Your task to perform on an android device: turn on translation in the chrome app Image 0: 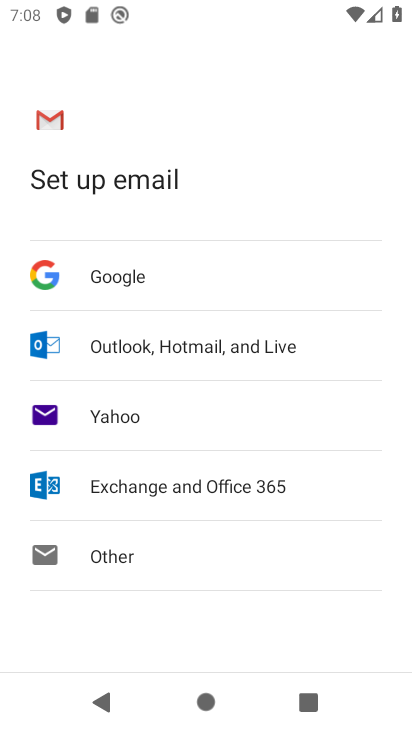
Step 0: press home button
Your task to perform on an android device: turn on translation in the chrome app Image 1: 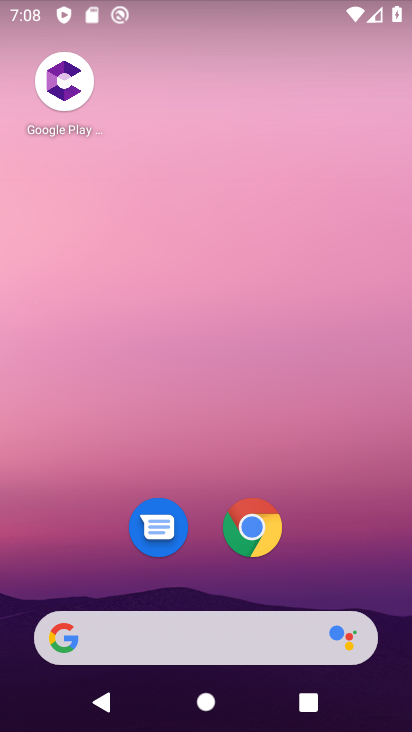
Step 1: click (251, 545)
Your task to perform on an android device: turn on translation in the chrome app Image 2: 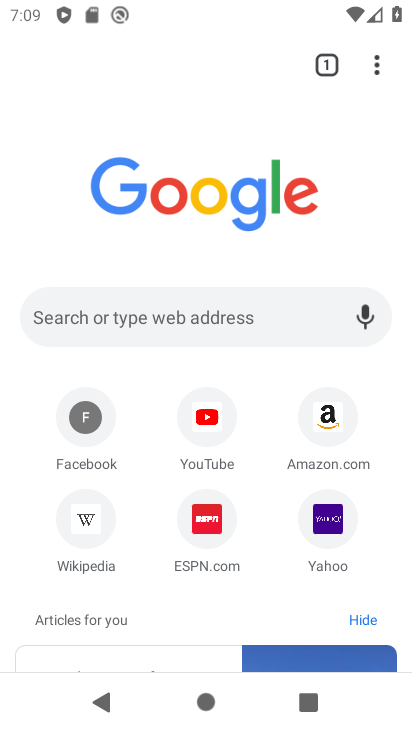
Step 2: click (379, 78)
Your task to perform on an android device: turn on translation in the chrome app Image 3: 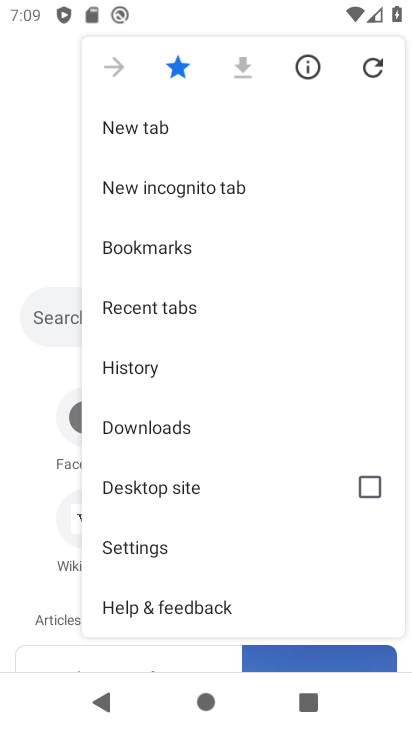
Step 3: drag from (164, 551) to (159, 398)
Your task to perform on an android device: turn on translation in the chrome app Image 4: 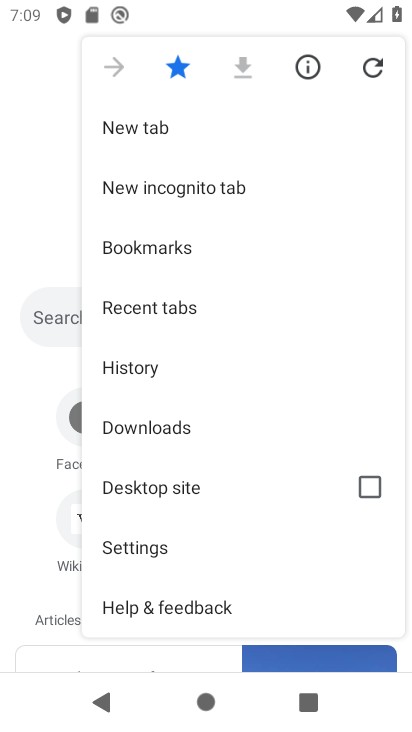
Step 4: click (170, 555)
Your task to perform on an android device: turn on translation in the chrome app Image 5: 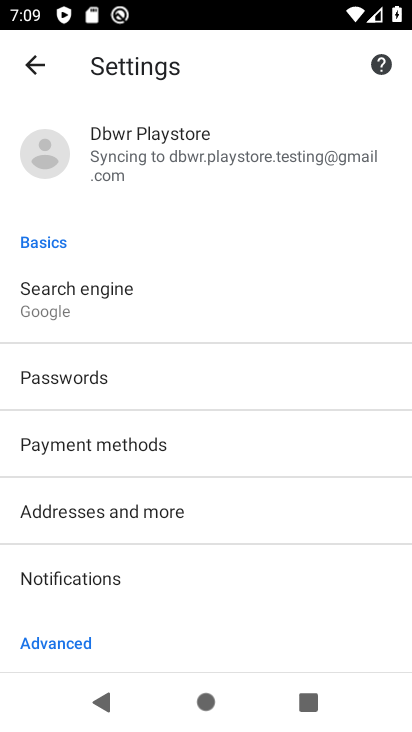
Step 5: drag from (135, 604) to (146, 279)
Your task to perform on an android device: turn on translation in the chrome app Image 6: 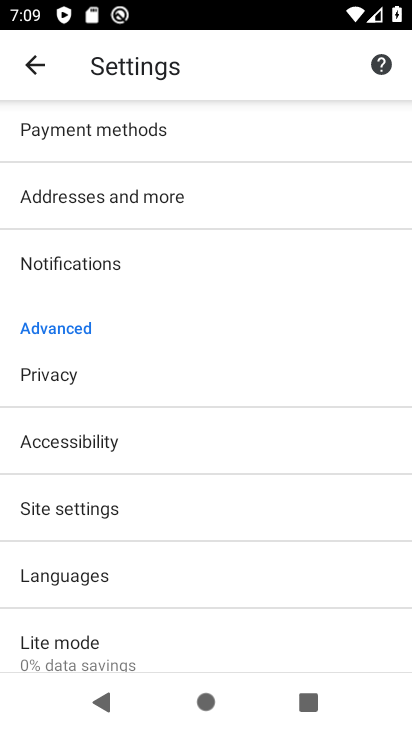
Step 6: click (104, 556)
Your task to perform on an android device: turn on translation in the chrome app Image 7: 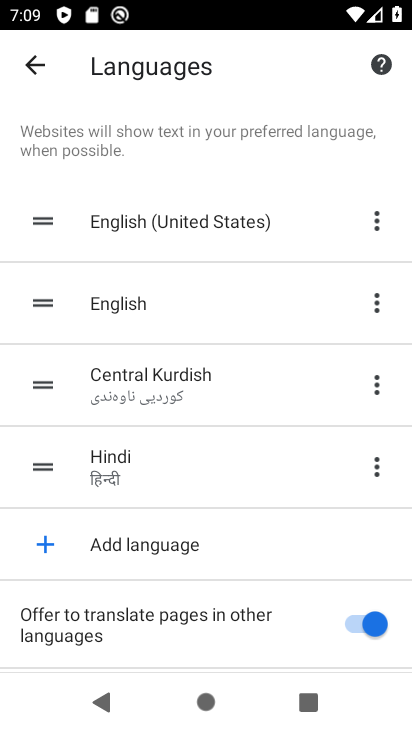
Step 7: task complete